Your task to perform on an android device: Open Reddit.com Image 0: 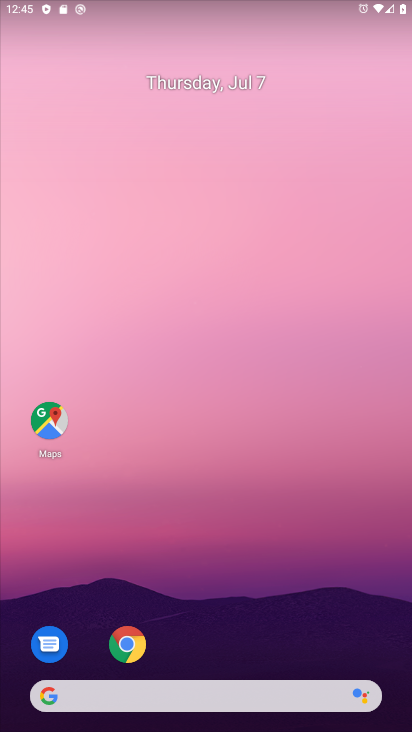
Step 0: click (125, 688)
Your task to perform on an android device: Open Reddit.com Image 1: 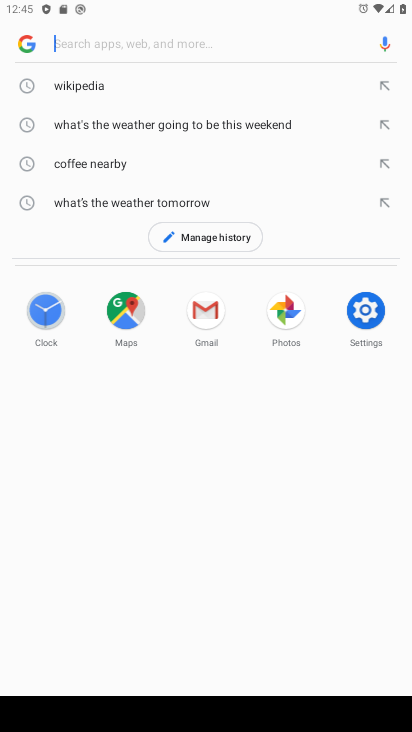
Step 1: type "Reddit.com"
Your task to perform on an android device: Open Reddit.com Image 2: 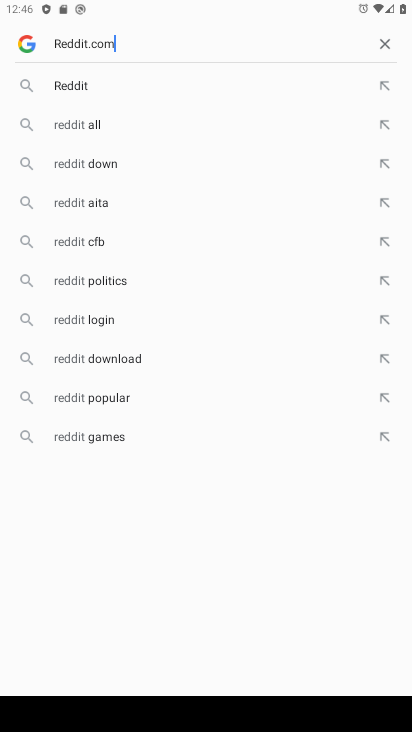
Step 2: type ""
Your task to perform on an android device: Open Reddit.com Image 3: 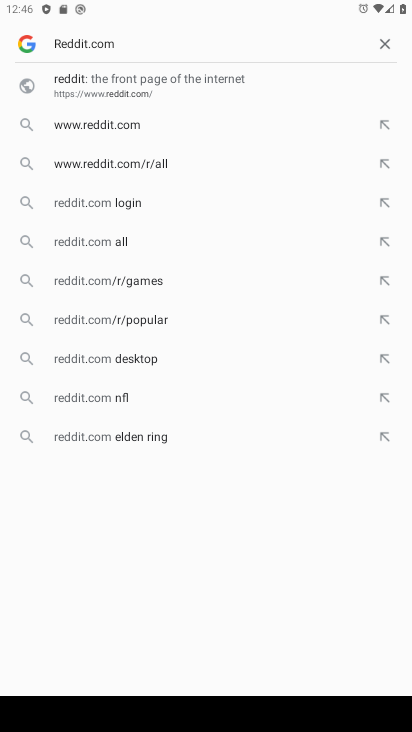
Step 3: type ""
Your task to perform on an android device: Open Reddit.com Image 4: 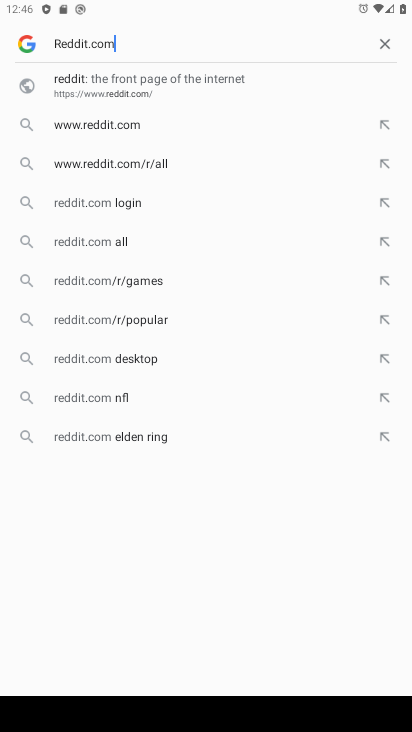
Step 4: type ""
Your task to perform on an android device: Open Reddit.com Image 5: 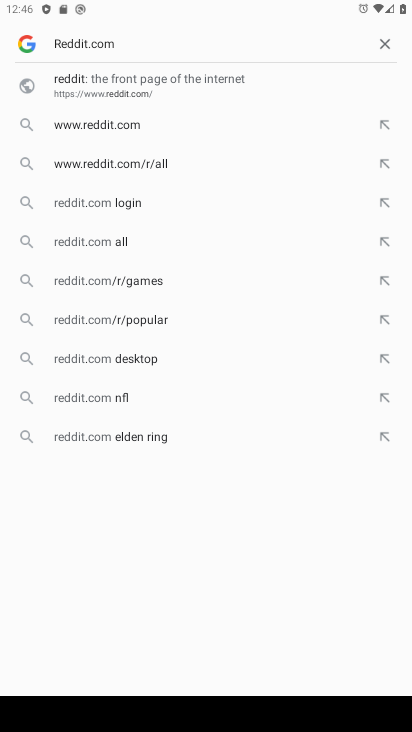
Step 5: click (47, 84)
Your task to perform on an android device: Open Reddit.com Image 6: 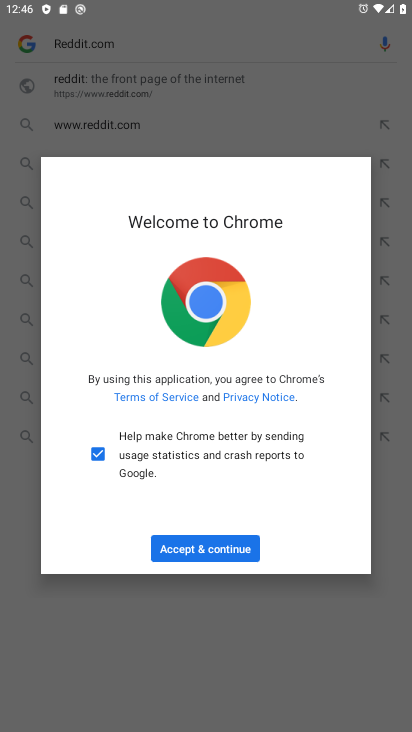
Step 6: task complete